Your task to perform on an android device: Go to wifi settings Image 0: 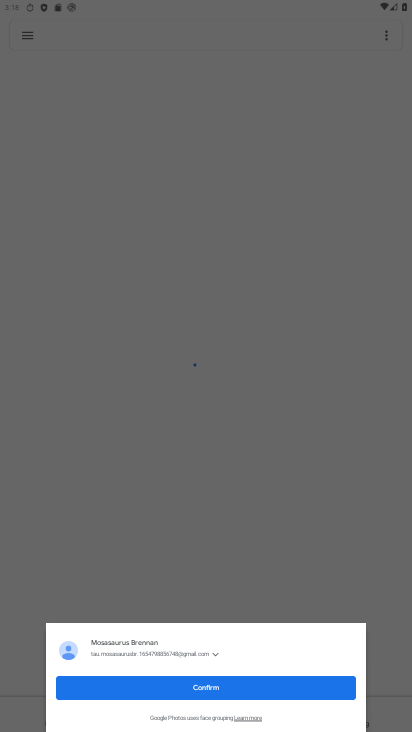
Step 0: press home button
Your task to perform on an android device: Go to wifi settings Image 1: 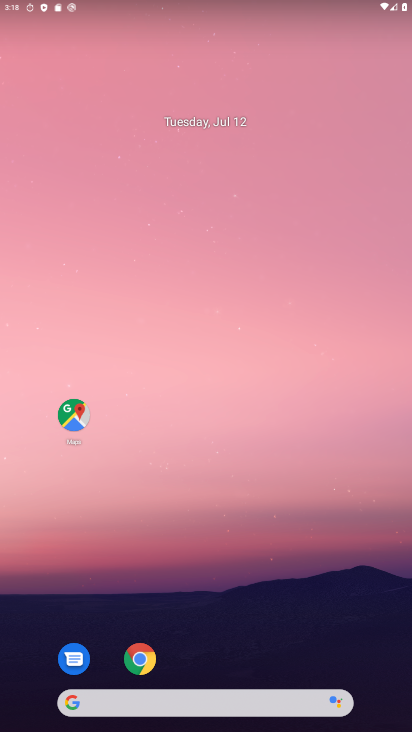
Step 1: drag from (272, 645) to (241, 90)
Your task to perform on an android device: Go to wifi settings Image 2: 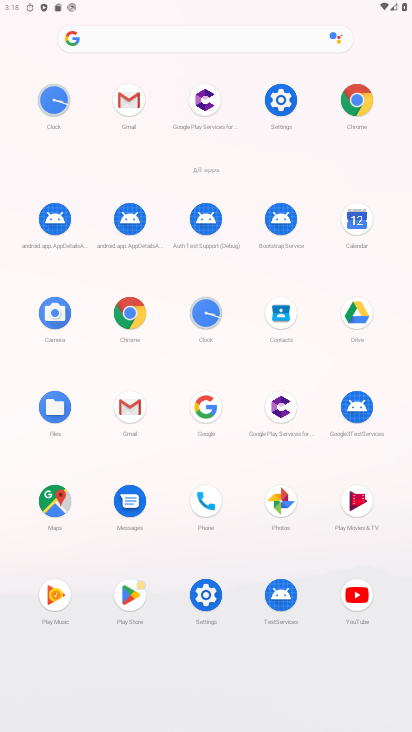
Step 2: click (131, 100)
Your task to perform on an android device: Go to wifi settings Image 3: 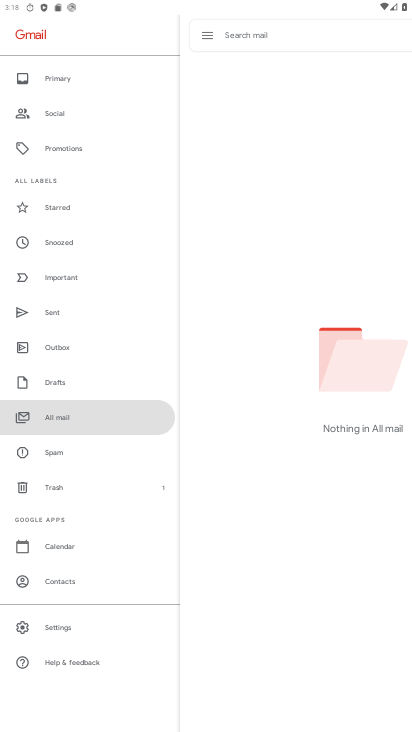
Step 3: click (88, 632)
Your task to perform on an android device: Go to wifi settings Image 4: 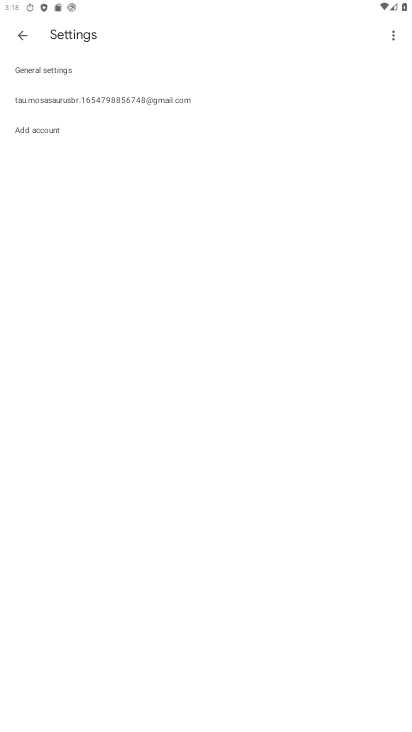
Step 4: press home button
Your task to perform on an android device: Go to wifi settings Image 5: 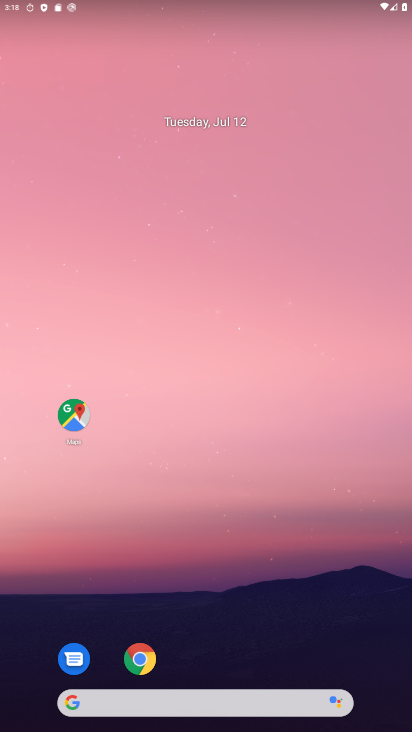
Step 5: drag from (246, 649) to (239, 83)
Your task to perform on an android device: Go to wifi settings Image 6: 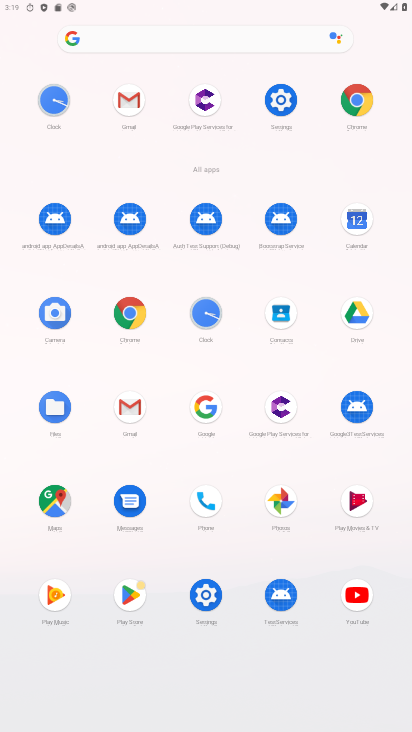
Step 6: click (282, 101)
Your task to perform on an android device: Go to wifi settings Image 7: 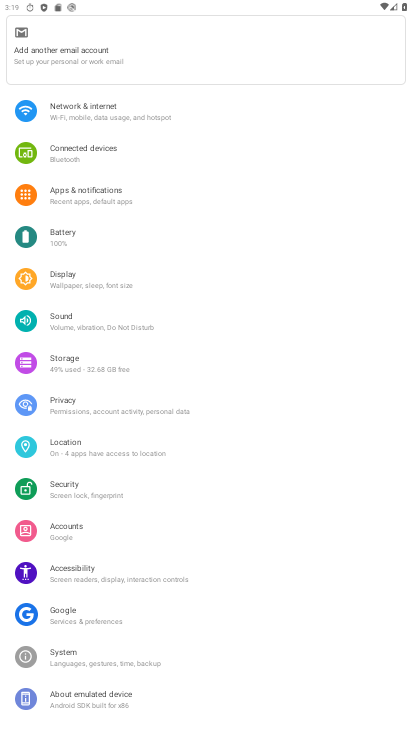
Step 7: click (177, 116)
Your task to perform on an android device: Go to wifi settings Image 8: 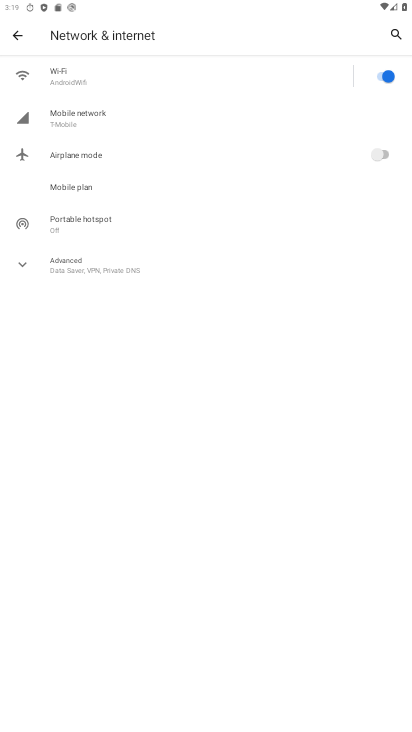
Step 8: click (220, 78)
Your task to perform on an android device: Go to wifi settings Image 9: 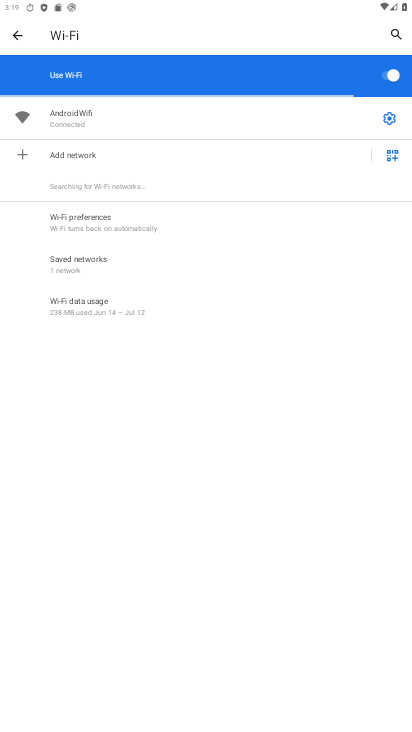
Step 9: task complete